Your task to perform on an android device: see creations saved in the google photos Image 0: 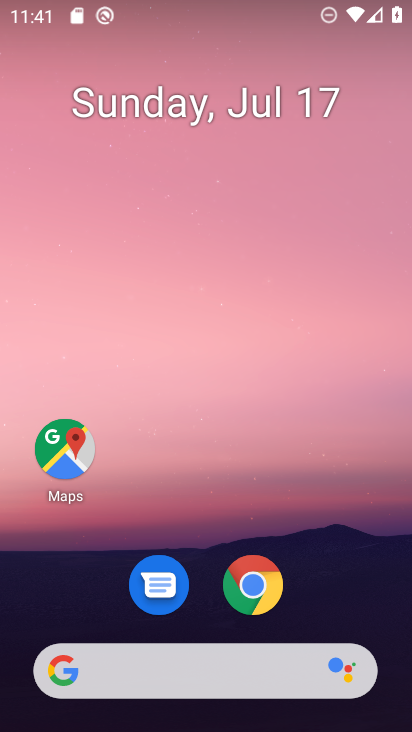
Step 0: drag from (174, 573) to (311, 83)
Your task to perform on an android device: see creations saved in the google photos Image 1: 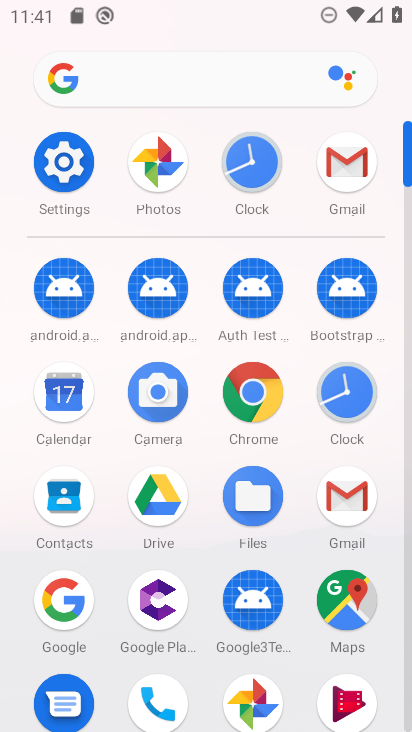
Step 1: click (162, 173)
Your task to perform on an android device: see creations saved in the google photos Image 2: 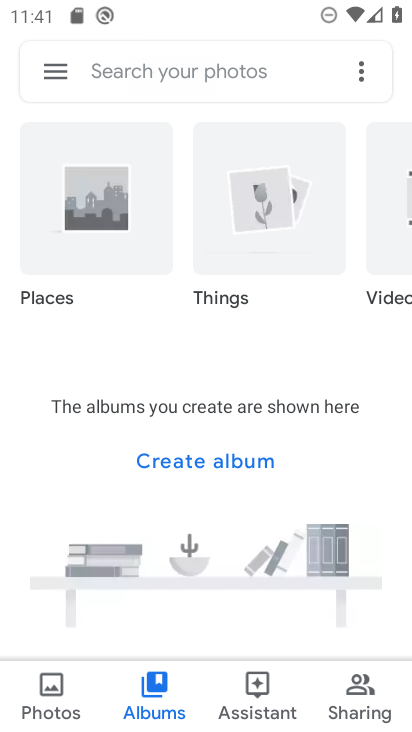
Step 2: click (220, 66)
Your task to perform on an android device: see creations saved in the google photos Image 3: 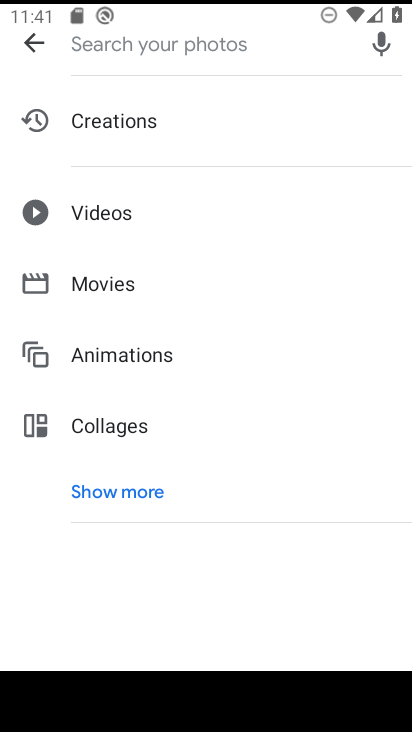
Step 3: click (134, 117)
Your task to perform on an android device: see creations saved in the google photos Image 4: 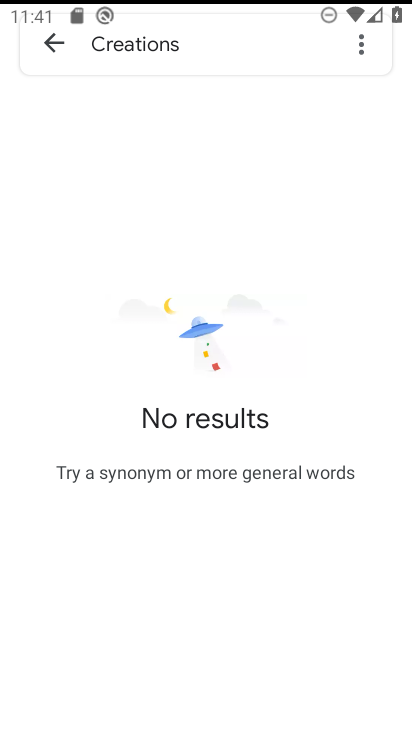
Step 4: task complete